Your task to perform on an android device: install app "PlayWell" Image 0: 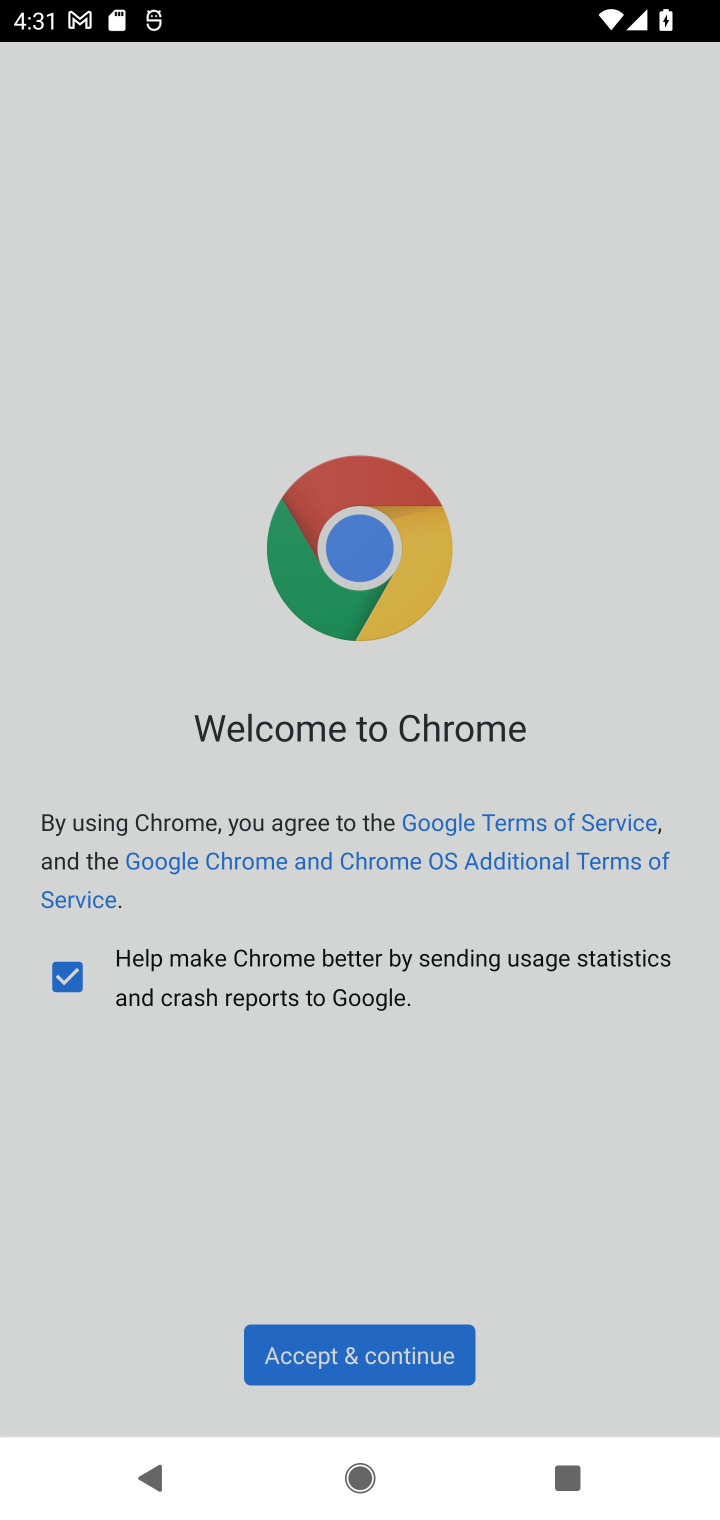
Step 0: press home button
Your task to perform on an android device: install app "PlayWell" Image 1: 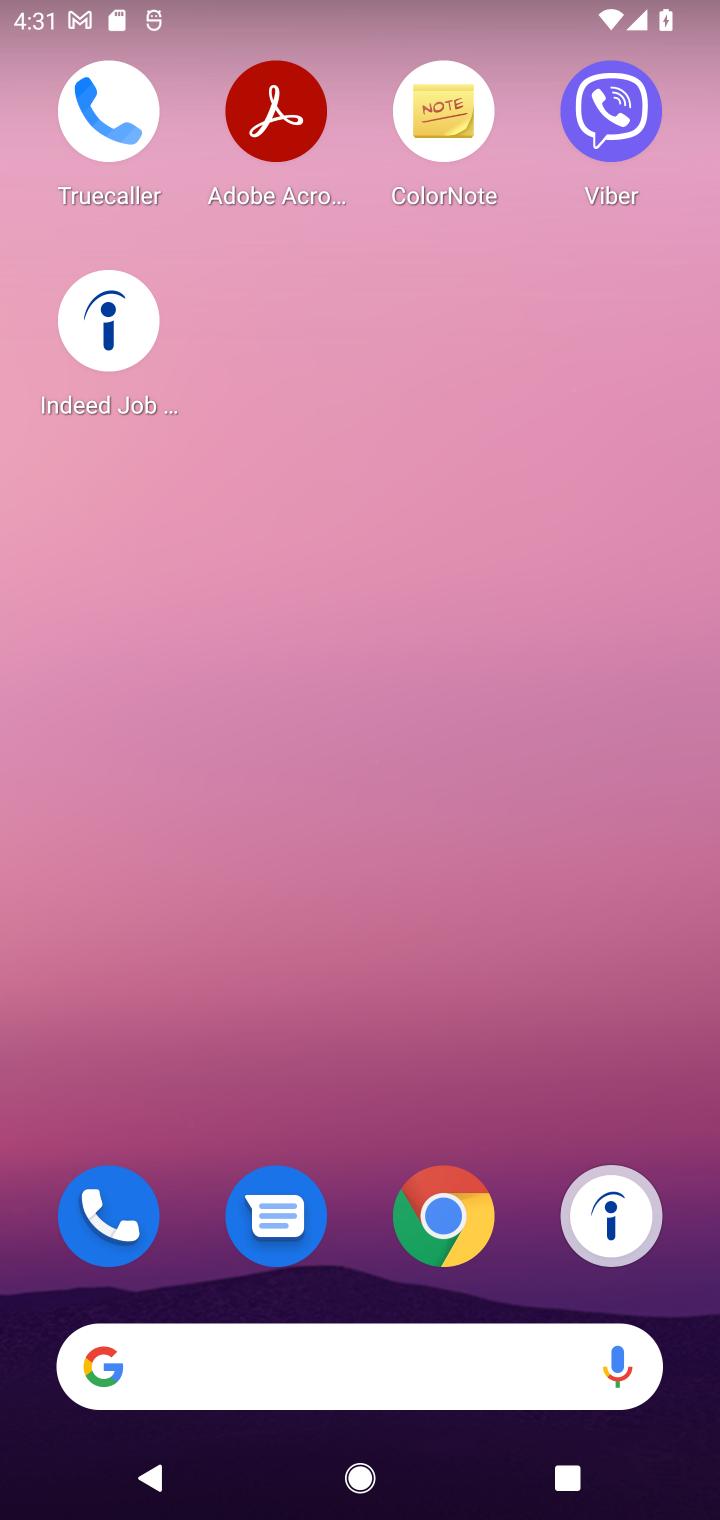
Step 1: drag from (533, 1237) to (489, 287)
Your task to perform on an android device: install app "PlayWell" Image 2: 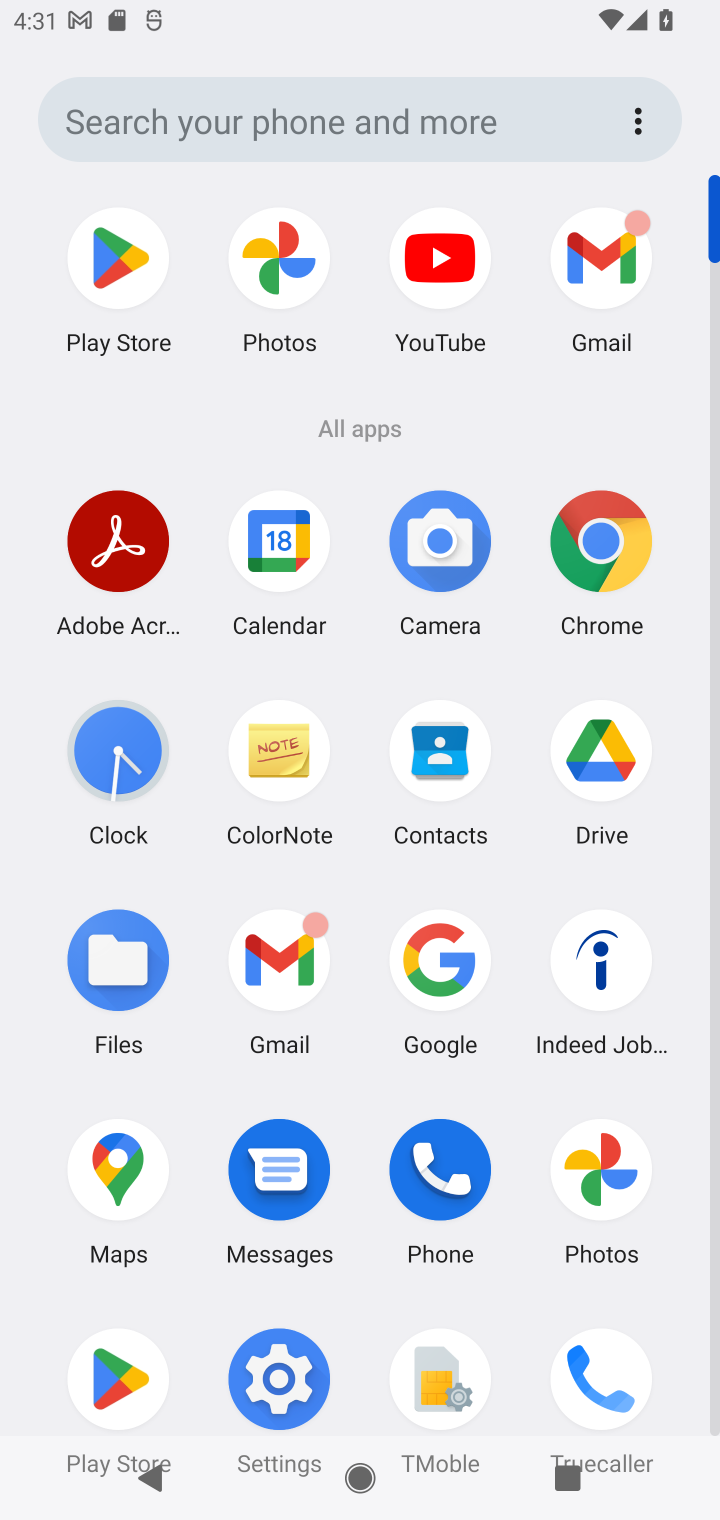
Step 2: click (117, 1382)
Your task to perform on an android device: install app "PlayWell" Image 3: 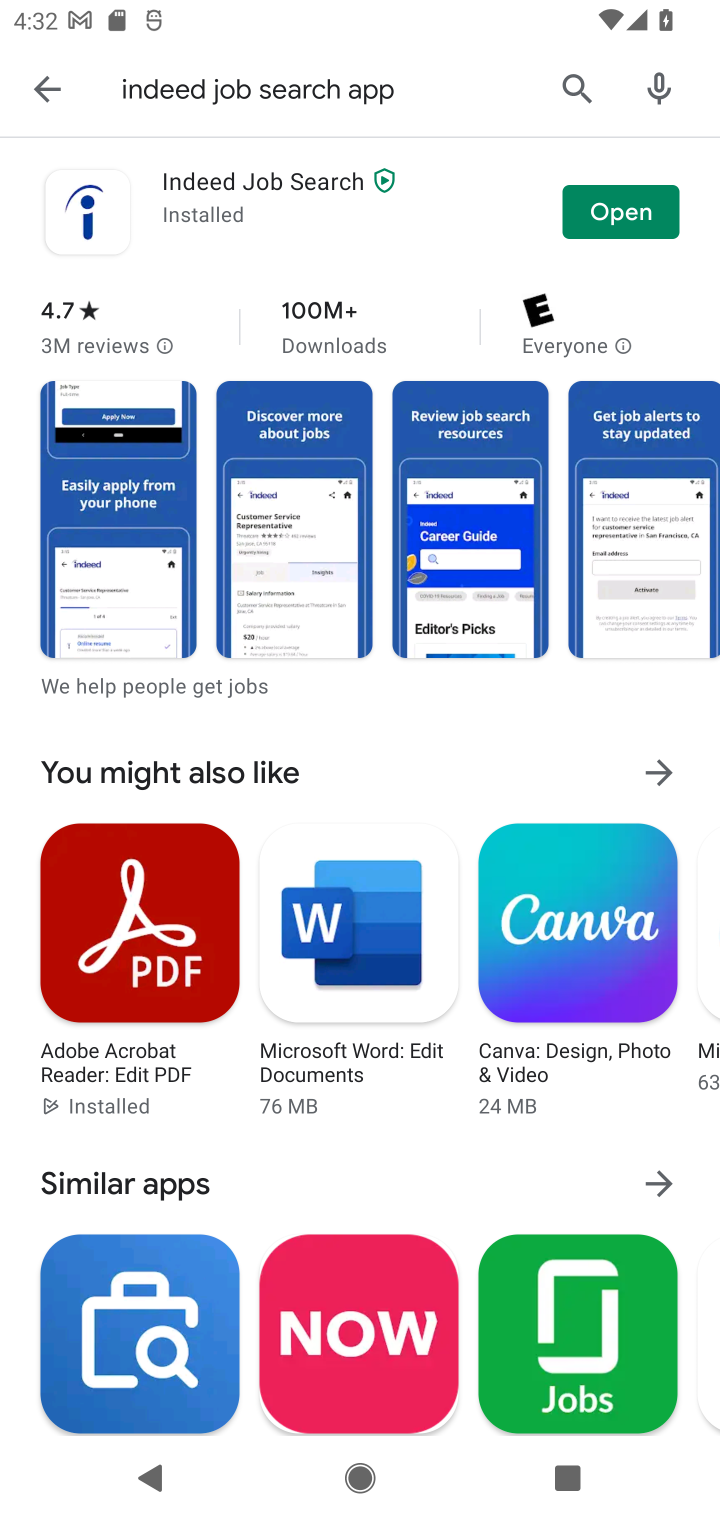
Step 3: click (569, 82)
Your task to perform on an android device: install app "PlayWell" Image 4: 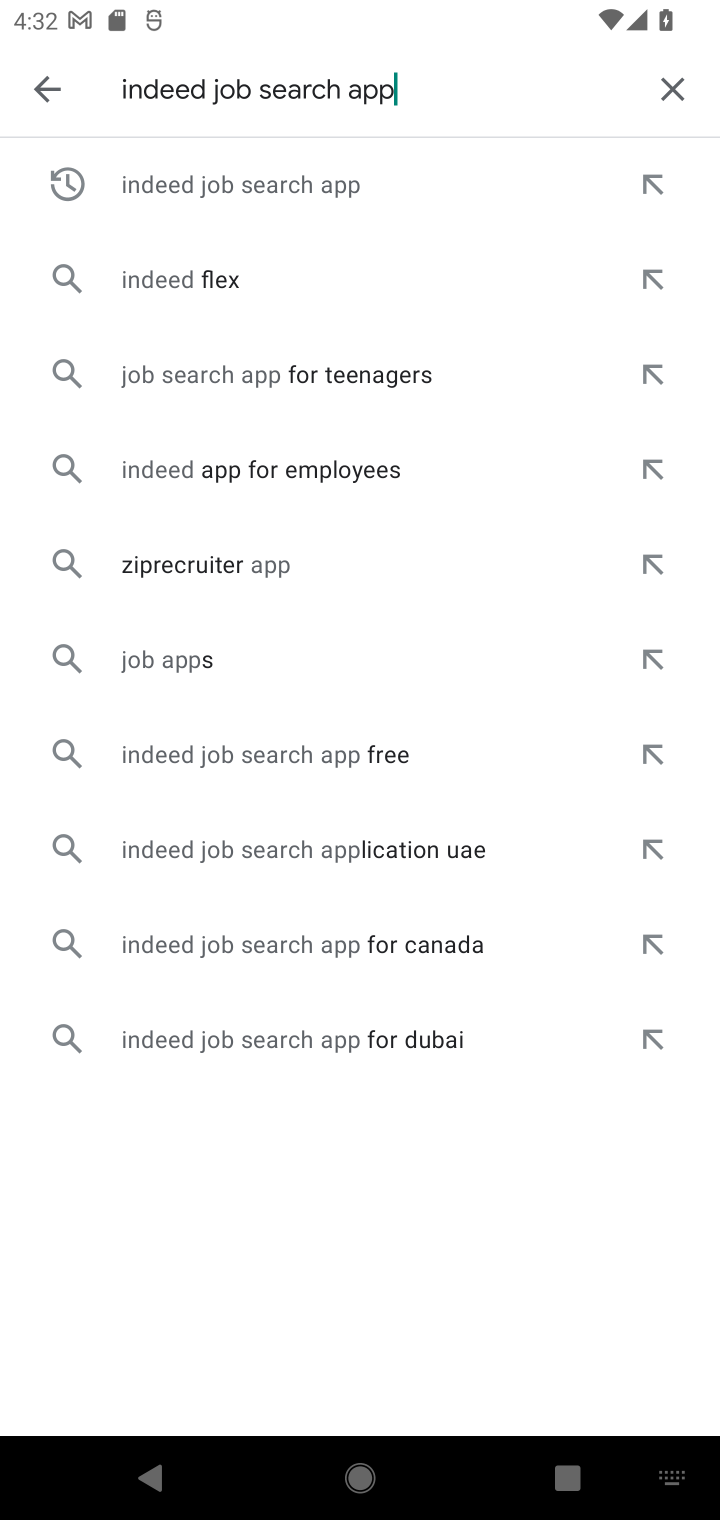
Step 4: click (670, 89)
Your task to perform on an android device: install app "PlayWell" Image 5: 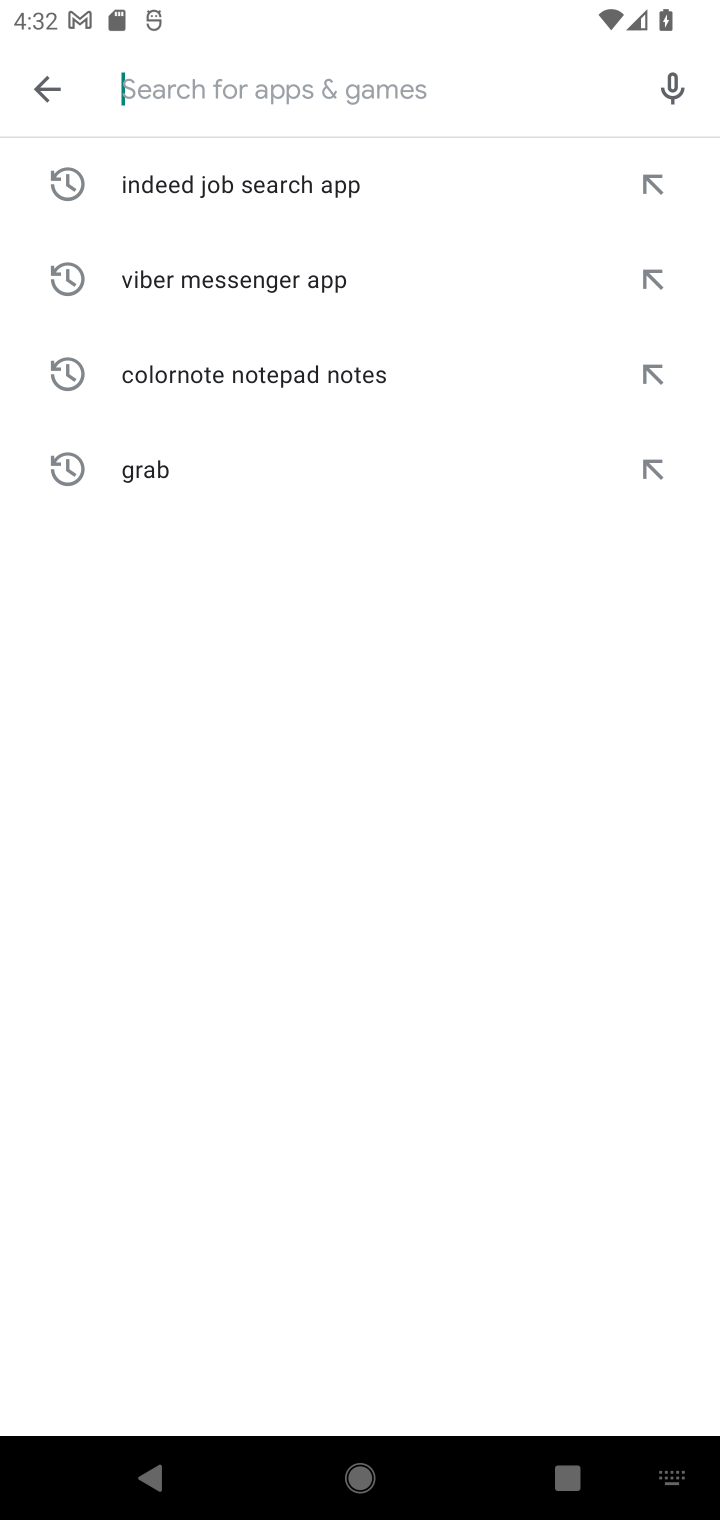
Step 5: type "PlayWell"
Your task to perform on an android device: install app "PlayWell" Image 6: 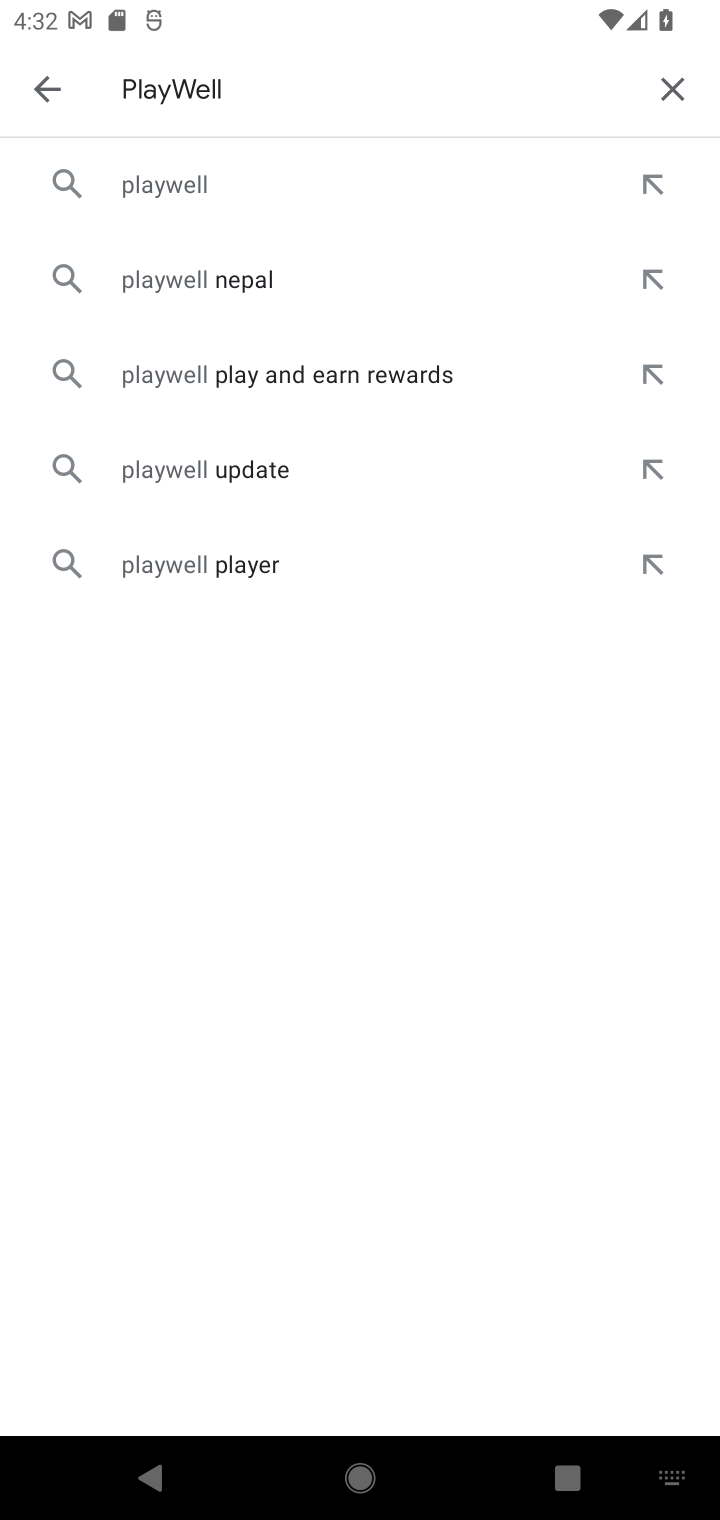
Step 6: click (146, 180)
Your task to perform on an android device: install app "PlayWell" Image 7: 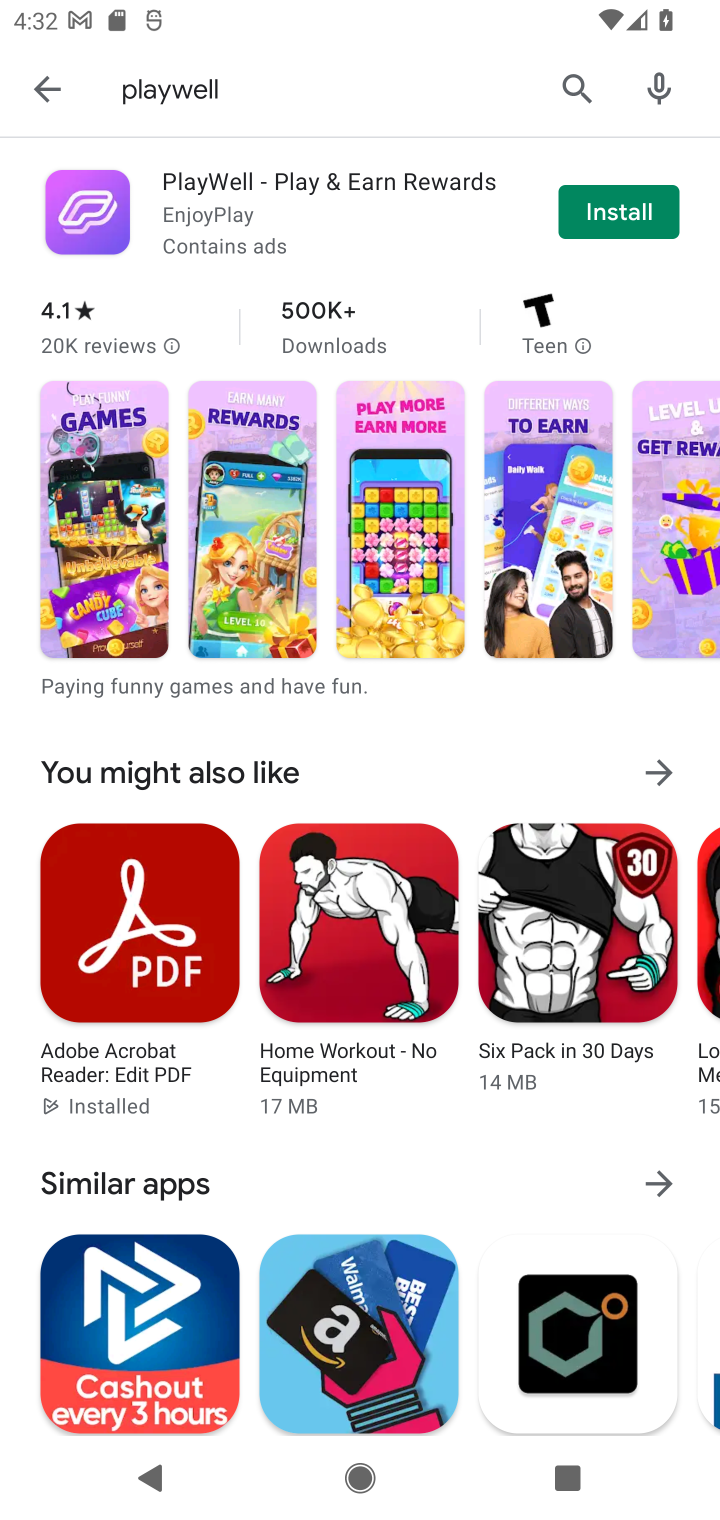
Step 7: click (624, 212)
Your task to perform on an android device: install app "PlayWell" Image 8: 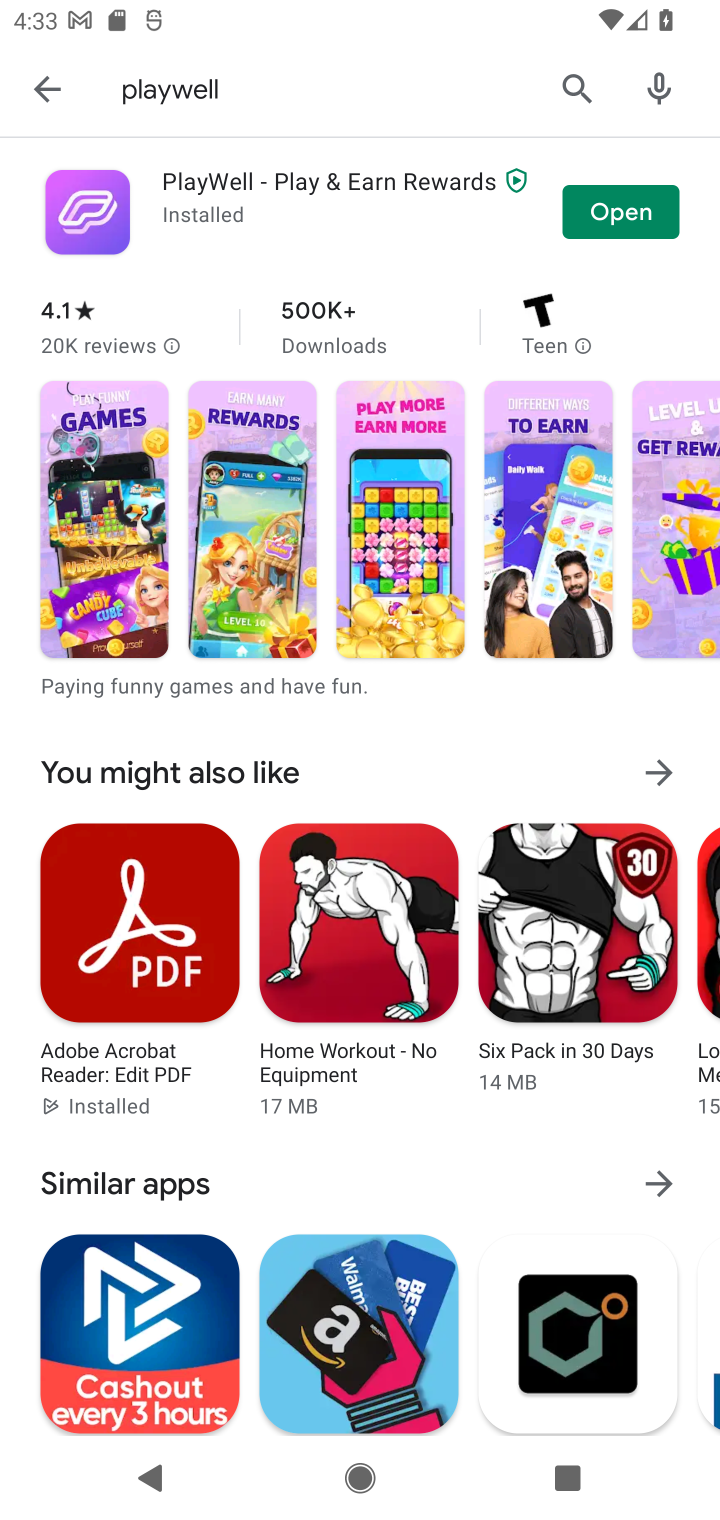
Step 8: task complete